Your task to perform on an android device: uninstall "Duolingo: language lessons" Image 0: 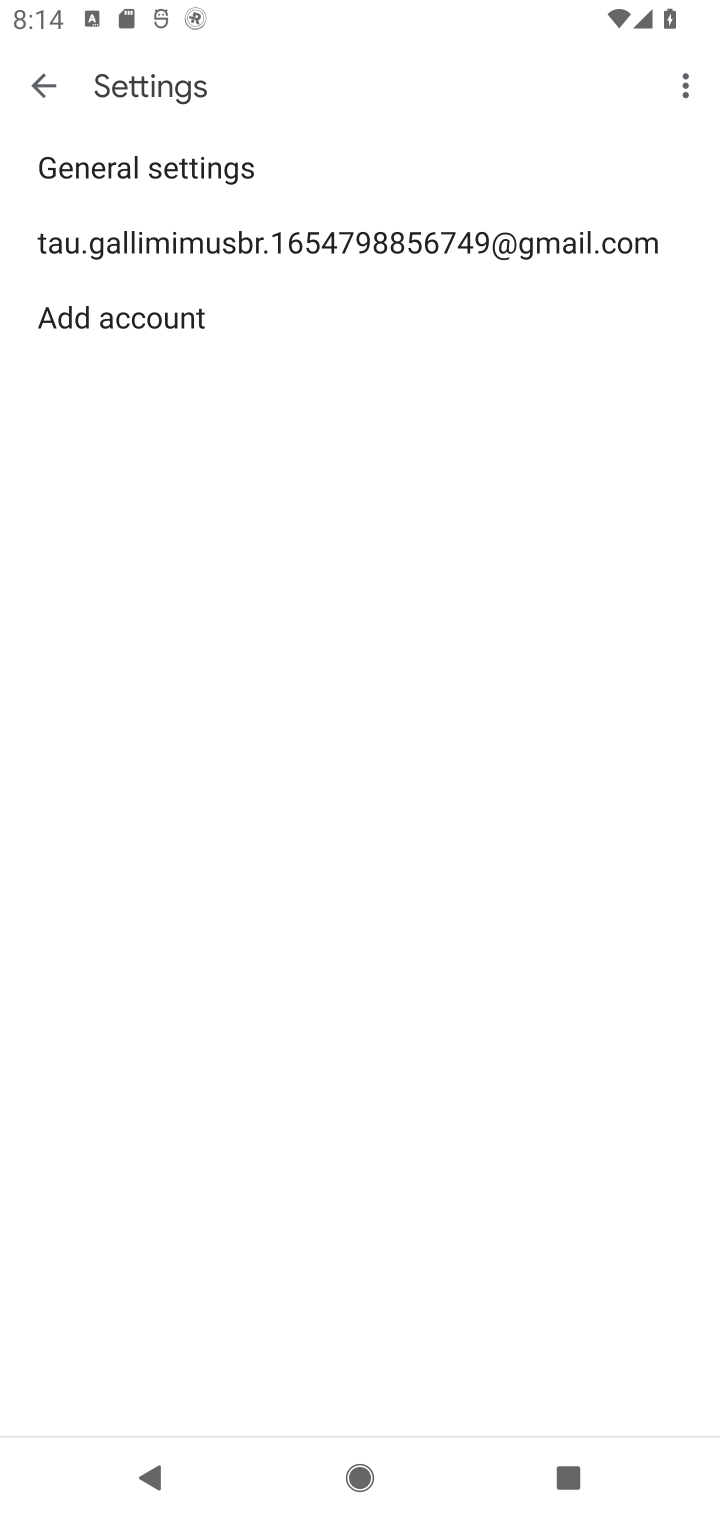
Step 0: press home button
Your task to perform on an android device: uninstall "Duolingo: language lessons" Image 1: 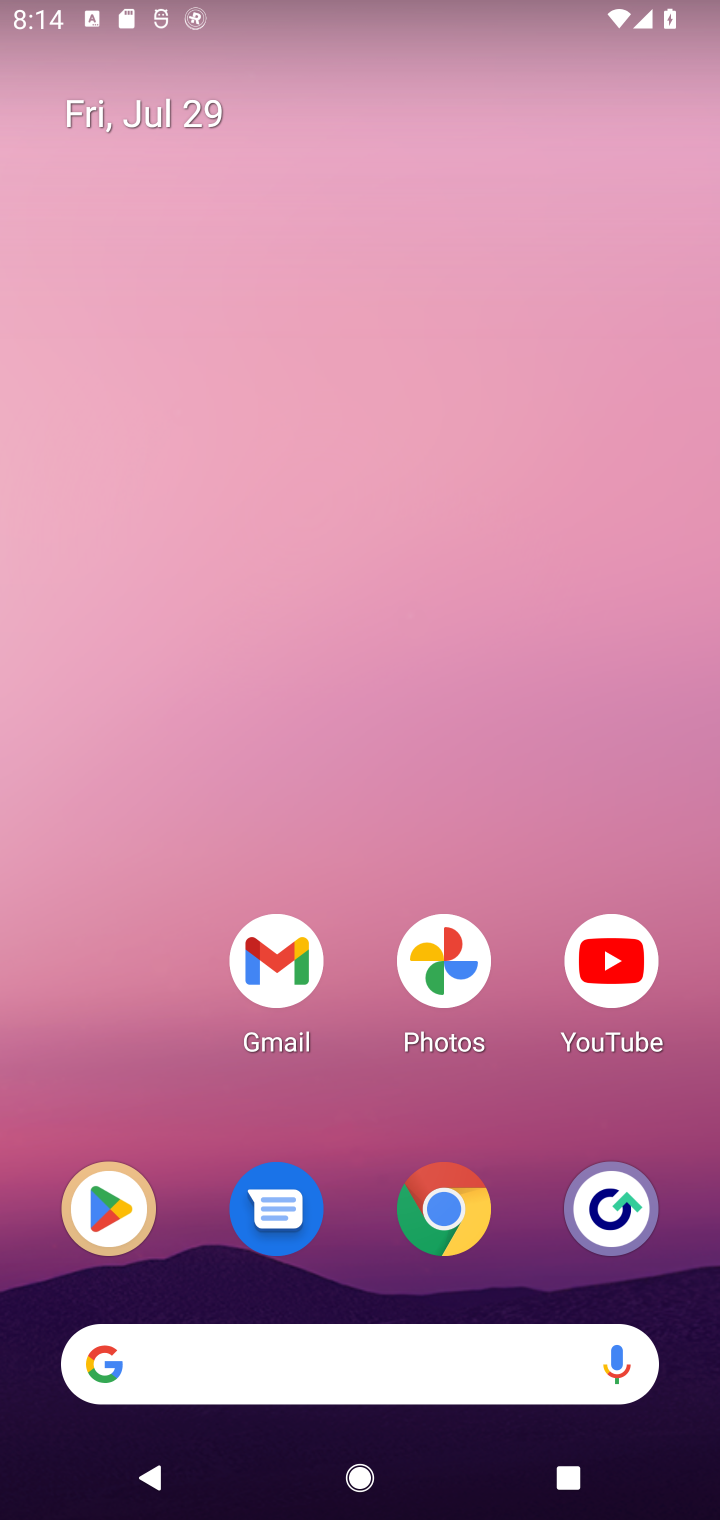
Step 1: click (121, 1212)
Your task to perform on an android device: uninstall "Duolingo: language lessons" Image 2: 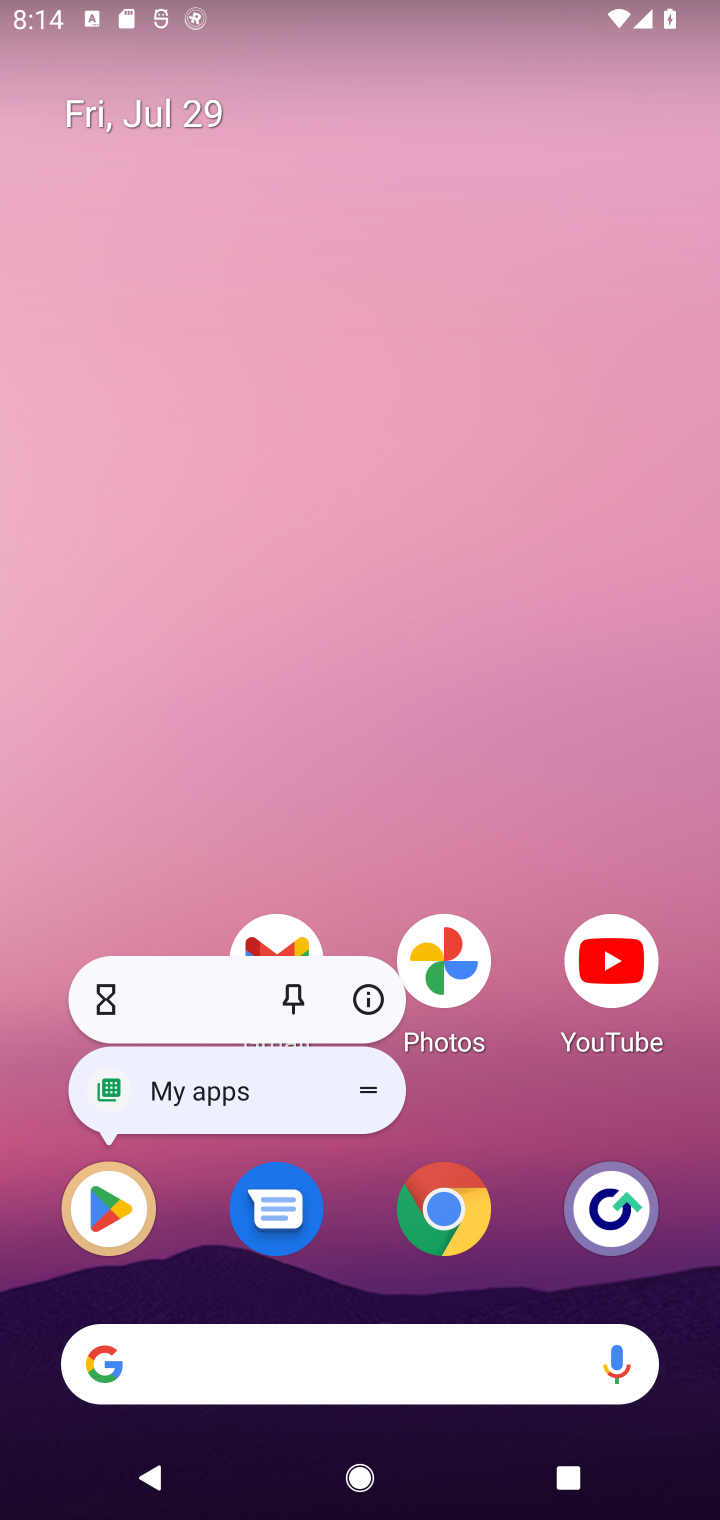
Step 2: click (121, 1212)
Your task to perform on an android device: uninstall "Duolingo: language lessons" Image 3: 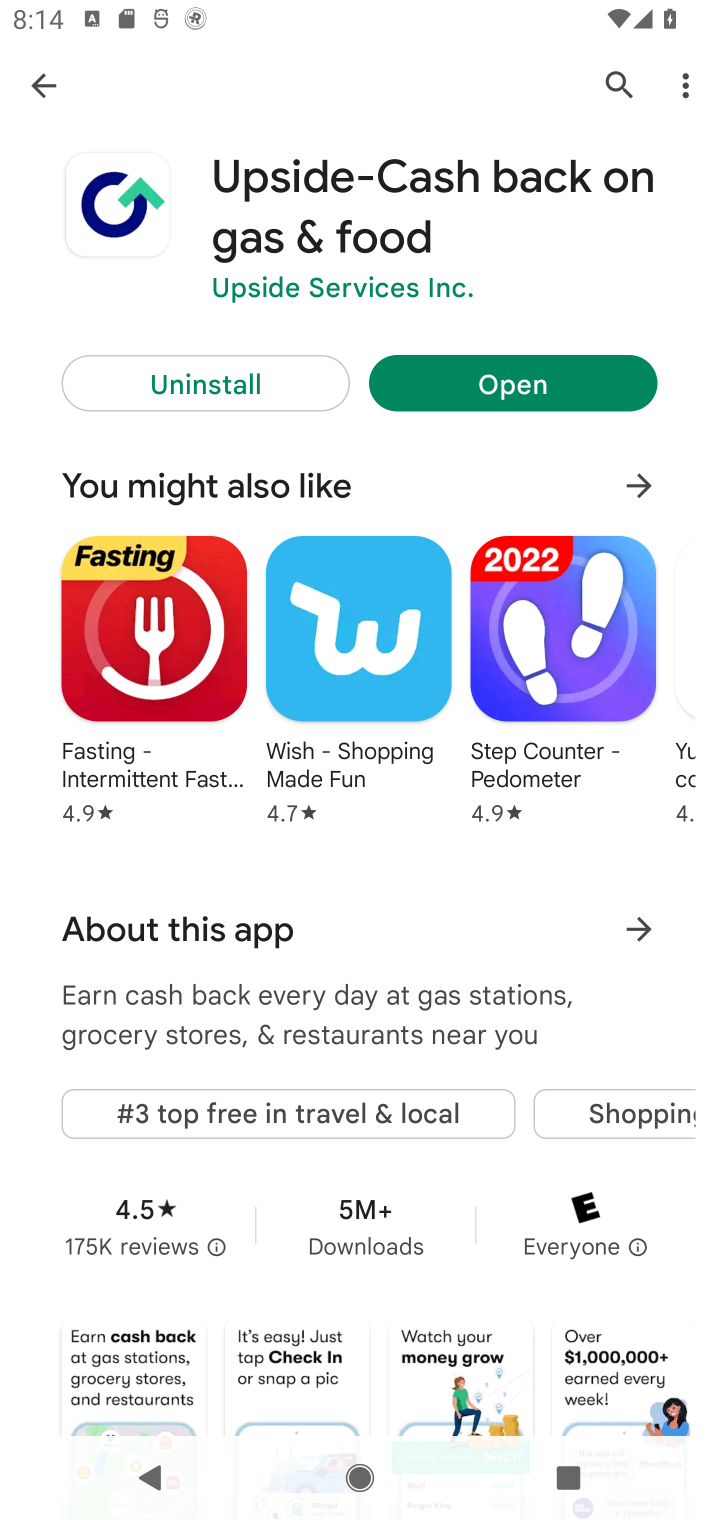
Step 3: click (609, 92)
Your task to perform on an android device: uninstall "Duolingo: language lessons" Image 4: 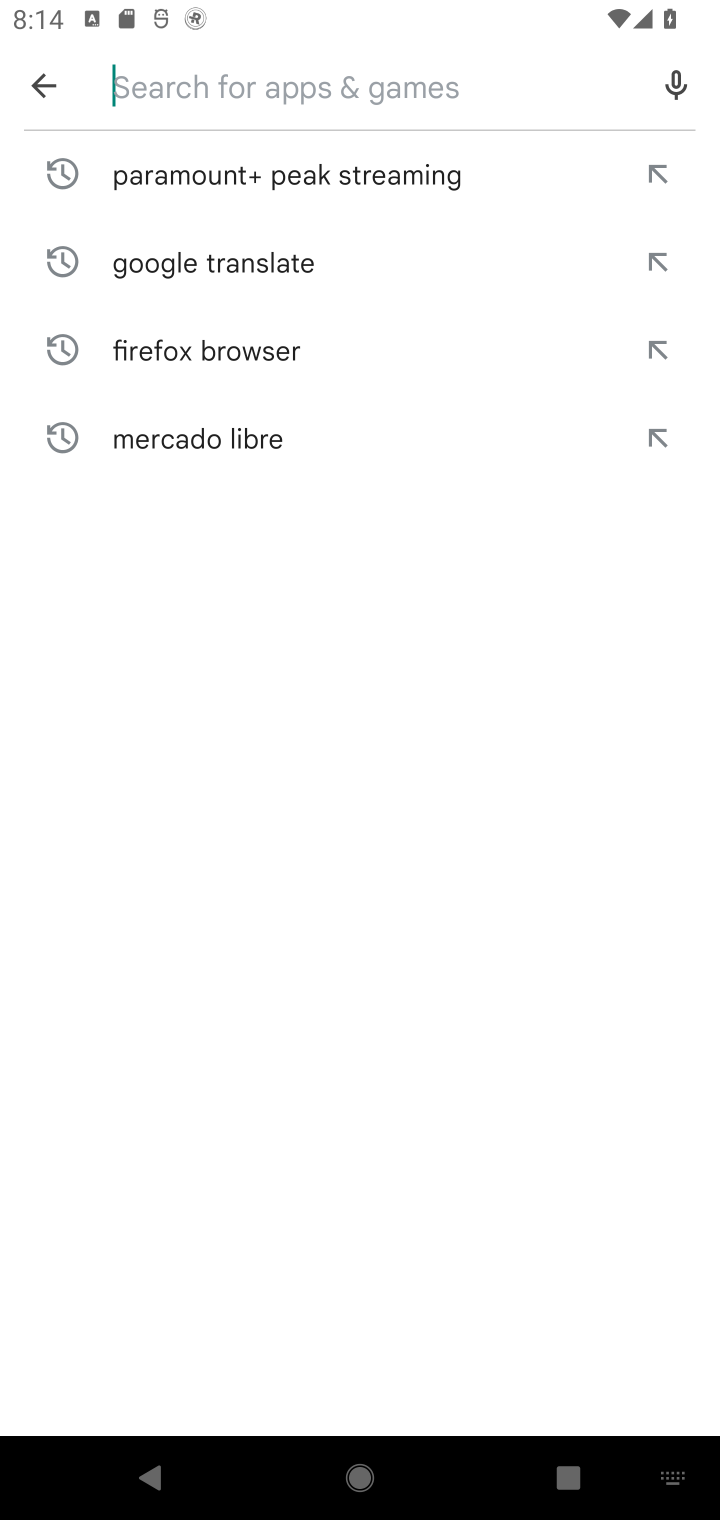
Step 4: type "Duolingo: language lessons"
Your task to perform on an android device: uninstall "Duolingo: language lessons" Image 5: 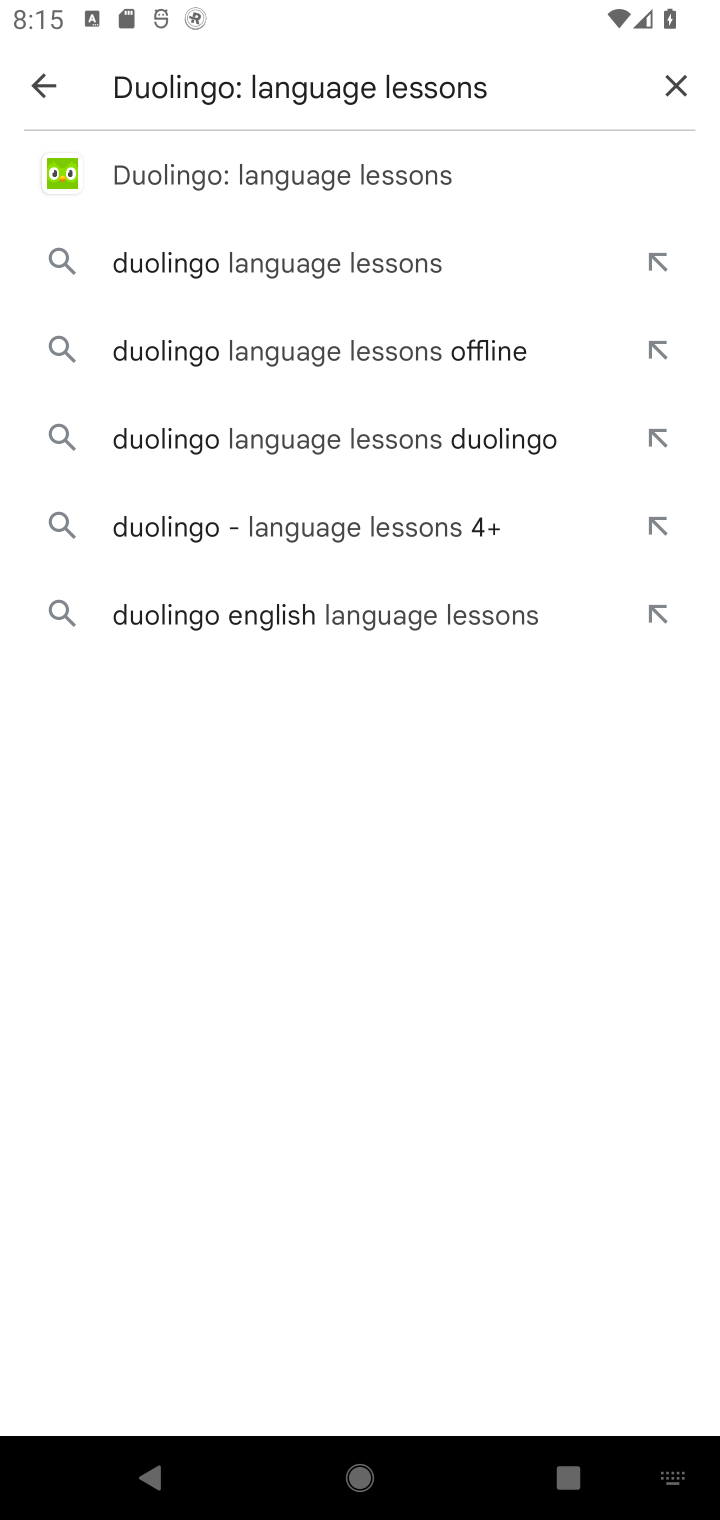
Step 5: click (303, 179)
Your task to perform on an android device: uninstall "Duolingo: language lessons" Image 6: 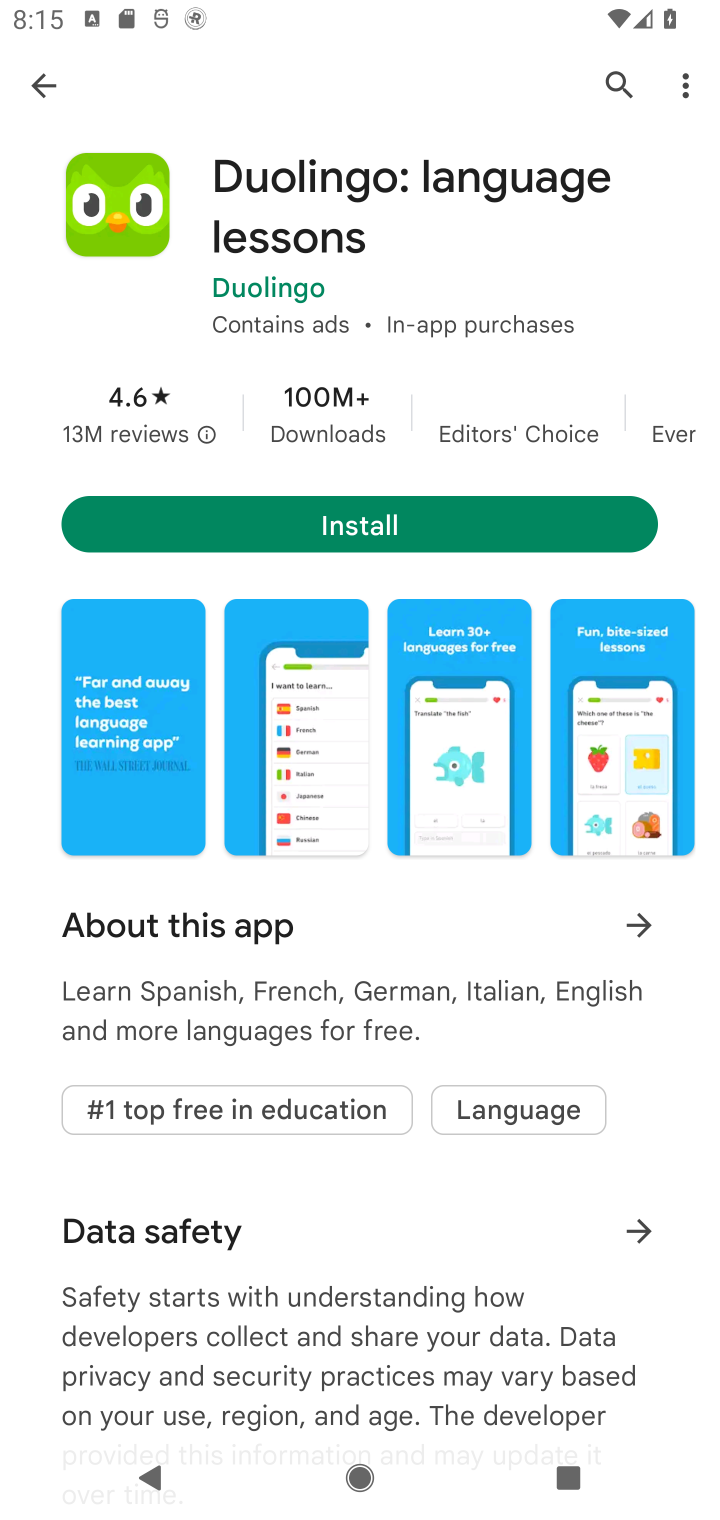
Step 6: task complete